Your task to perform on an android device: install app "Facebook Lite" Image 0: 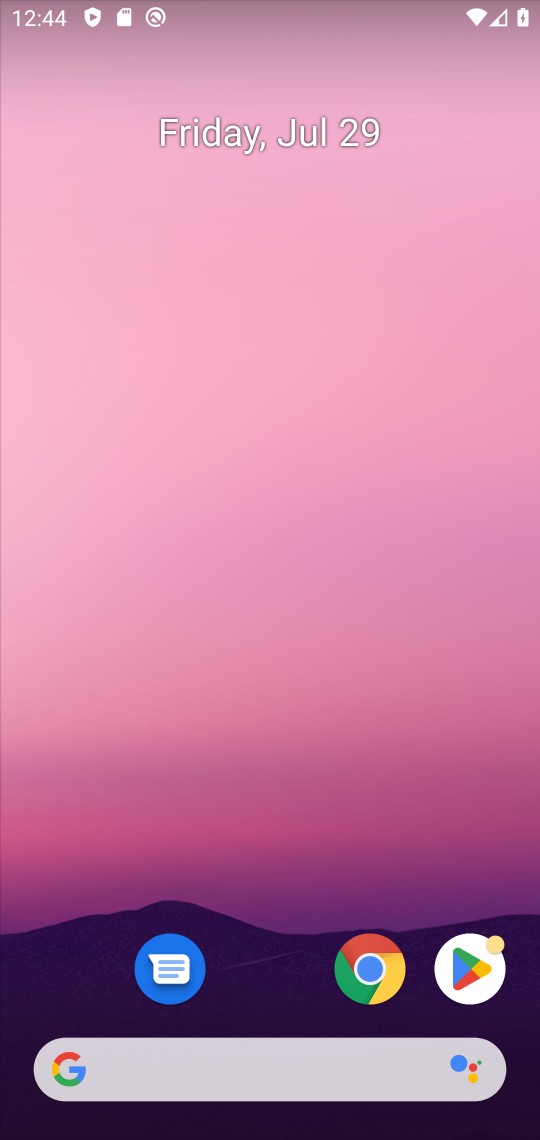
Step 0: click (474, 953)
Your task to perform on an android device: install app "Facebook Lite" Image 1: 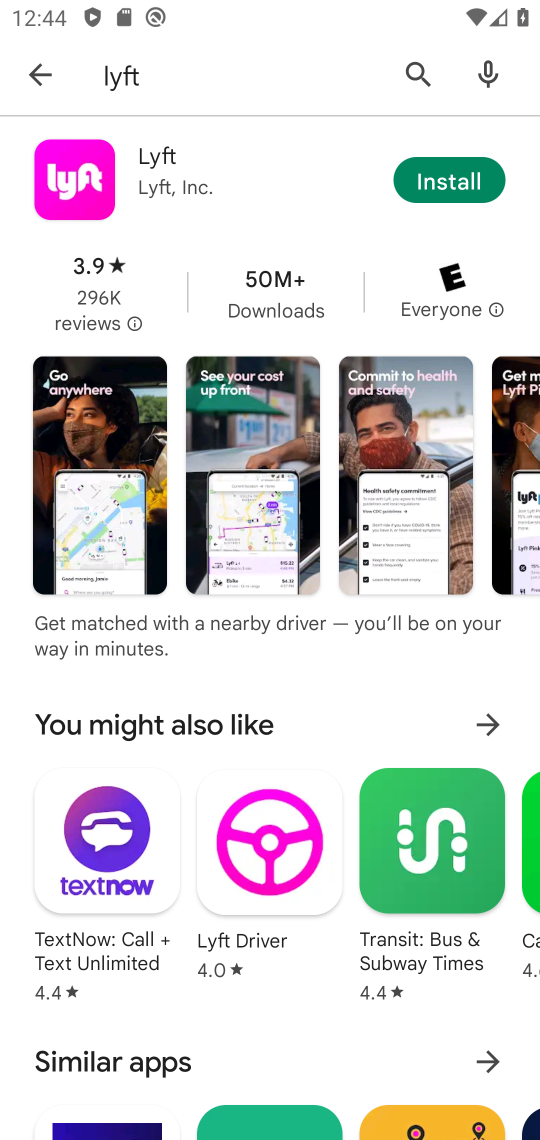
Step 1: click (410, 72)
Your task to perform on an android device: install app "Facebook Lite" Image 2: 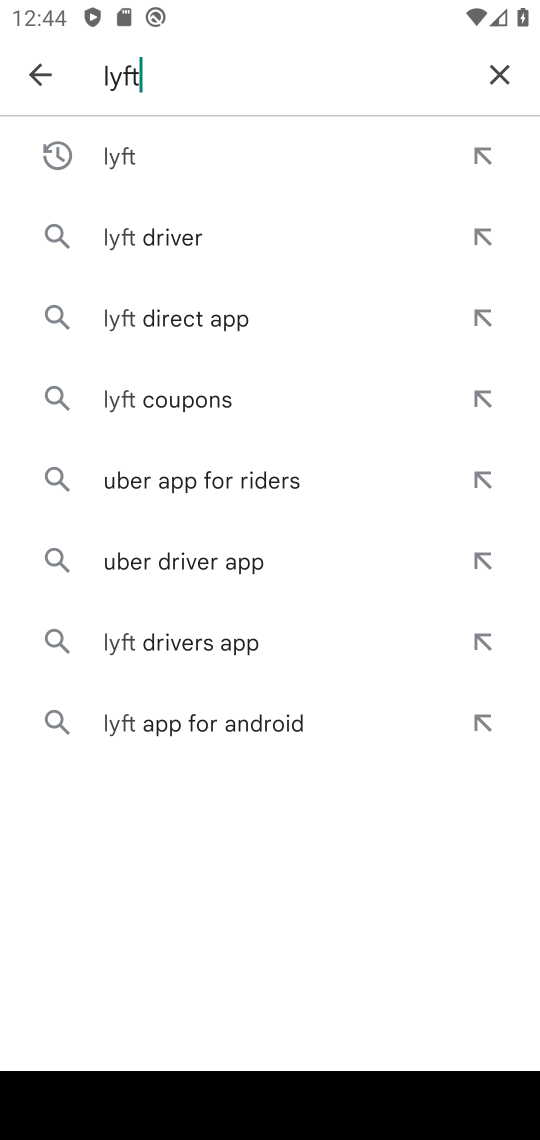
Step 2: click (506, 72)
Your task to perform on an android device: install app "Facebook Lite" Image 3: 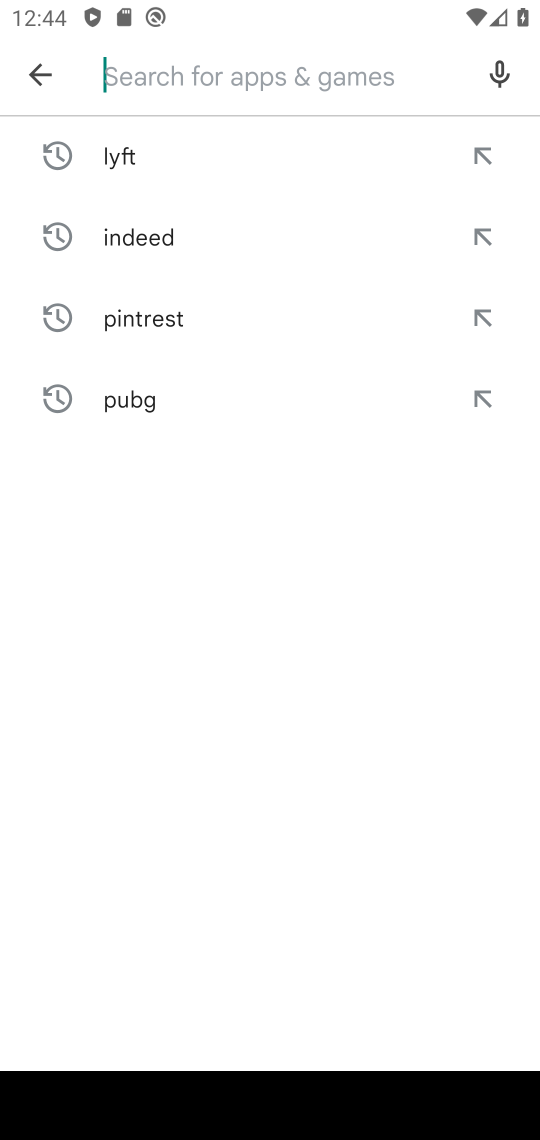
Step 3: type "facebook lite"
Your task to perform on an android device: install app "Facebook Lite" Image 4: 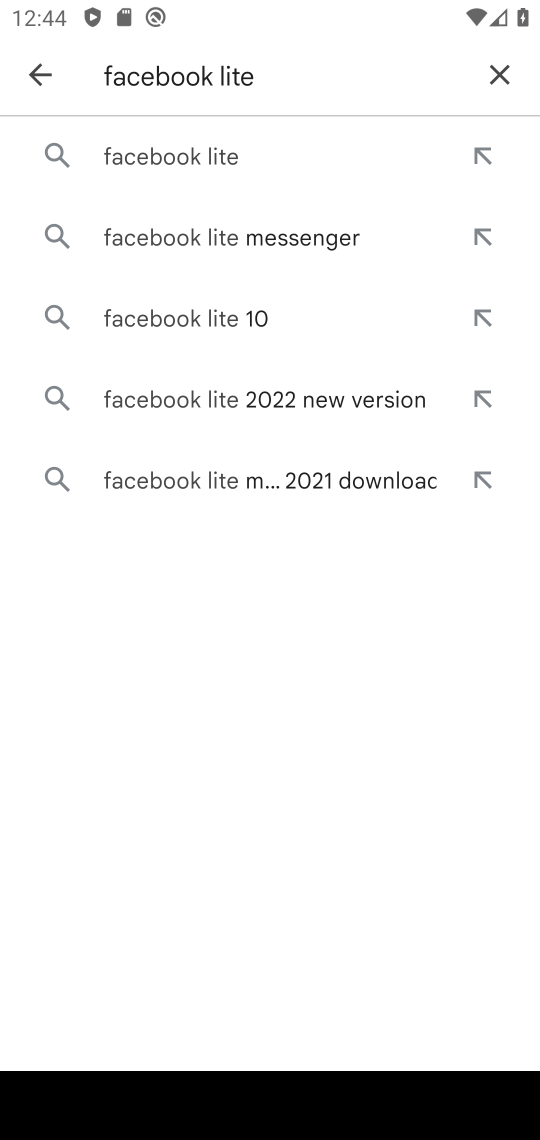
Step 4: click (198, 172)
Your task to perform on an android device: install app "Facebook Lite" Image 5: 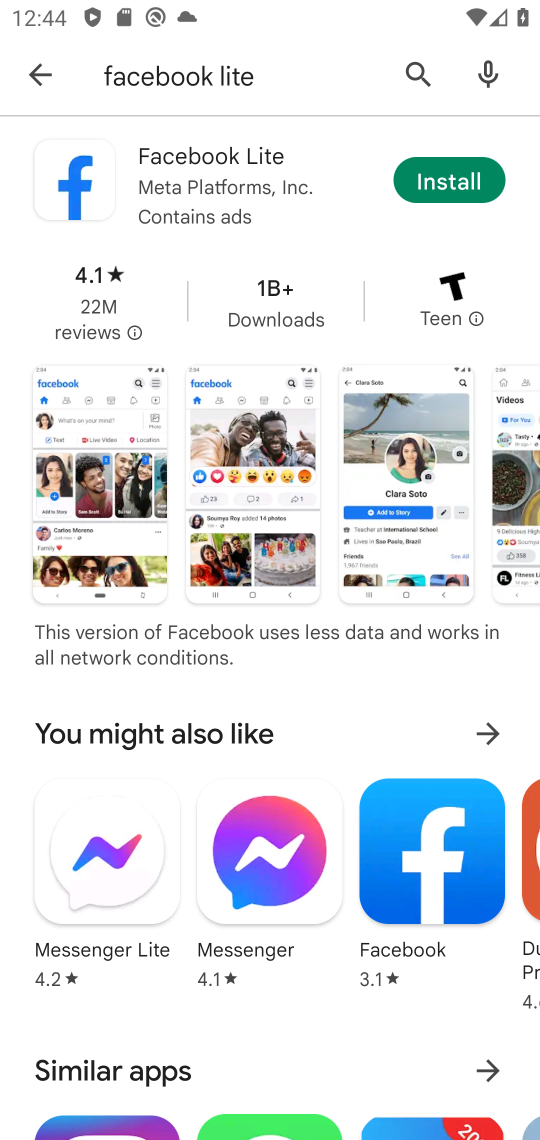
Step 5: click (426, 181)
Your task to perform on an android device: install app "Facebook Lite" Image 6: 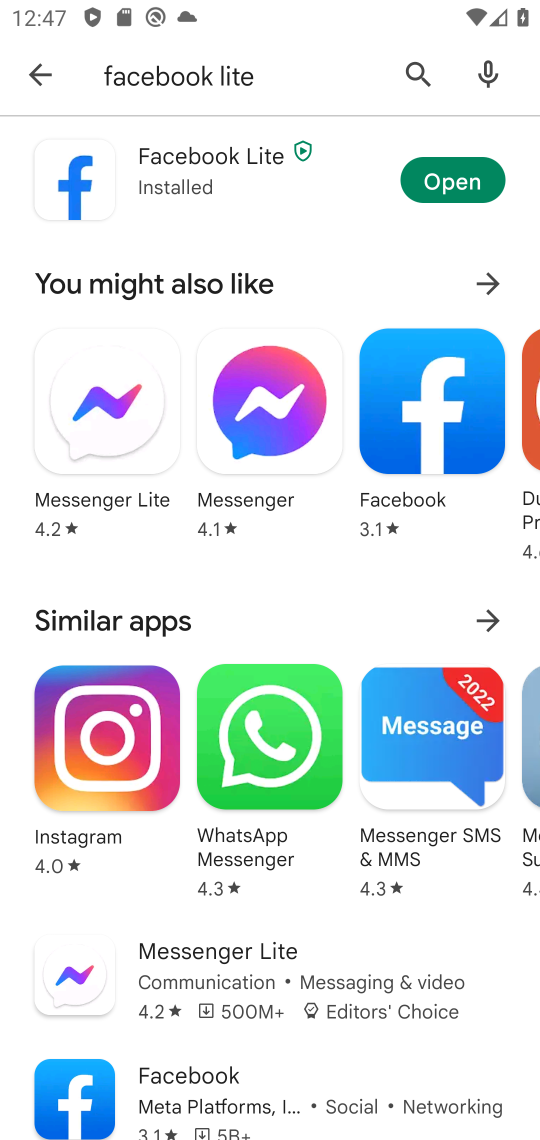
Step 6: task complete